Your task to perform on an android device: allow cookies in the chrome app Image 0: 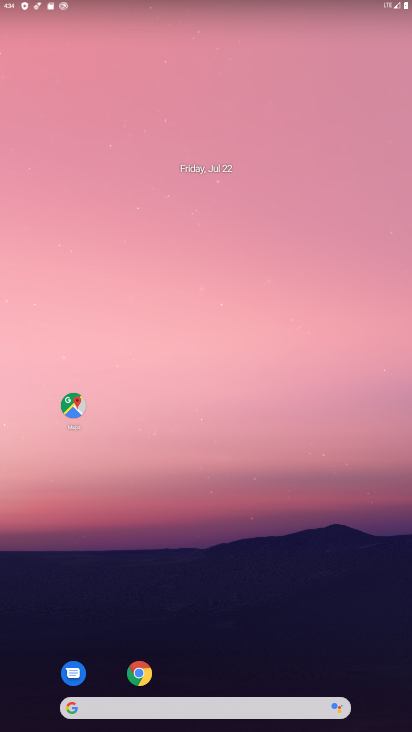
Step 0: press home button
Your task to perform on an android device: allow cookies in the chrome app Image 1: 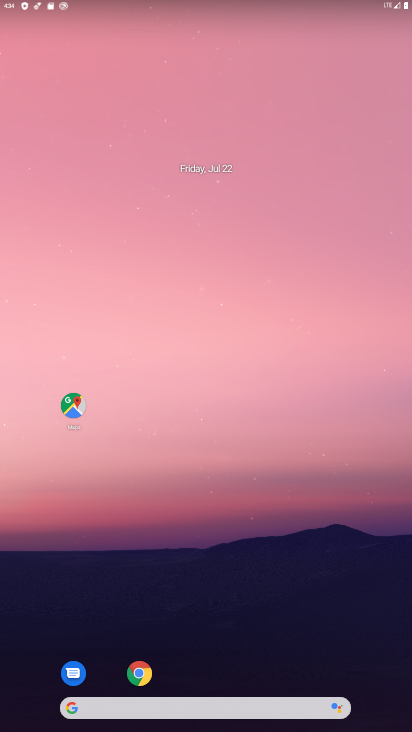
Step 1: drag from (289, 638) to (258, 121)
Your task to perform on an android device: allow cookies in the chrome app Image 2: 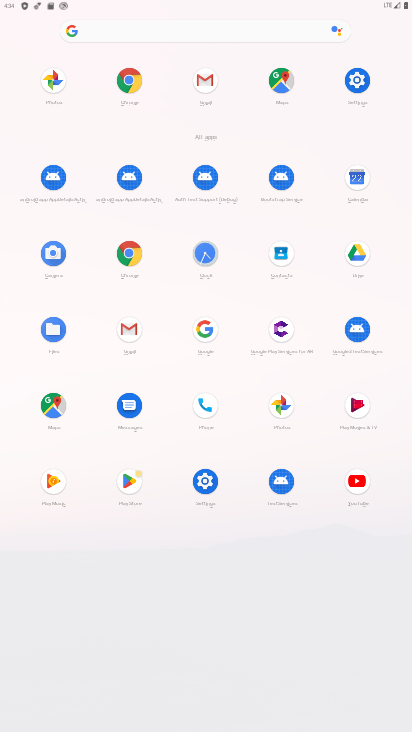
Step 2: click (124, 74)
Your task to perform on an android device: allow cookies in the chrome app Image 3: 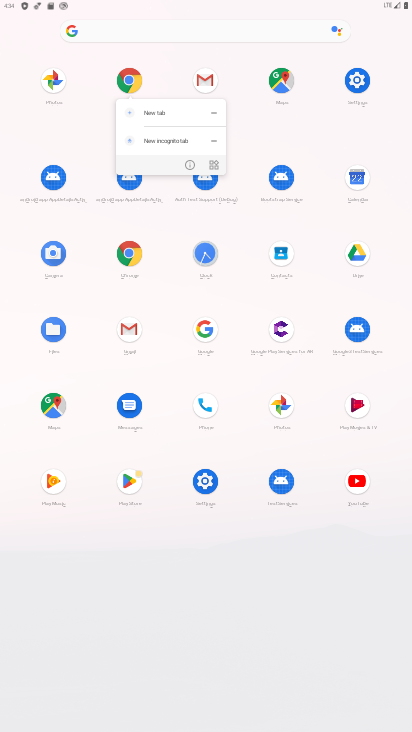
Step 3: click (129, 87)
Your task to perform on an android device: allow cookies in the chrome app Image 4: 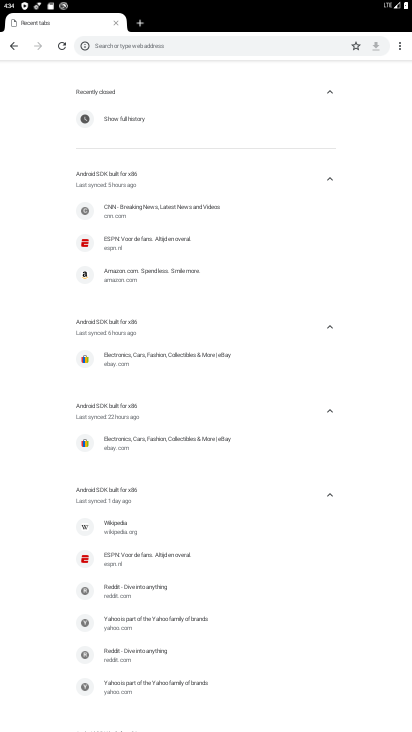
Step 4: drag from (396, 45) to (300, 207)
Your task to perform on an android device: allow cookies in the chrome app Image 5: 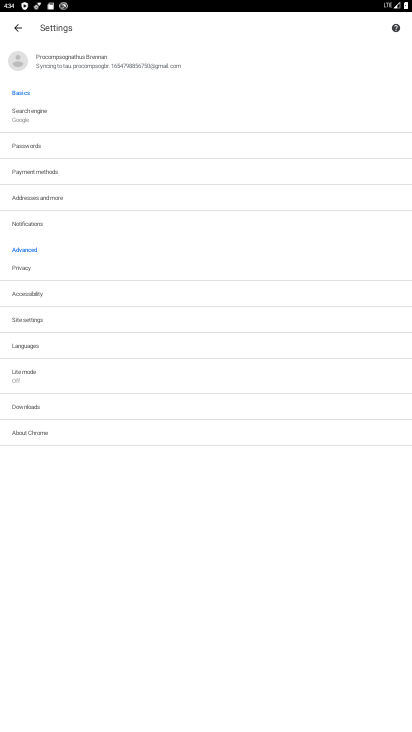
Step 5: click (31, 314)
Your task to perform on an android device: allow cookies in the chrome app Image 6: 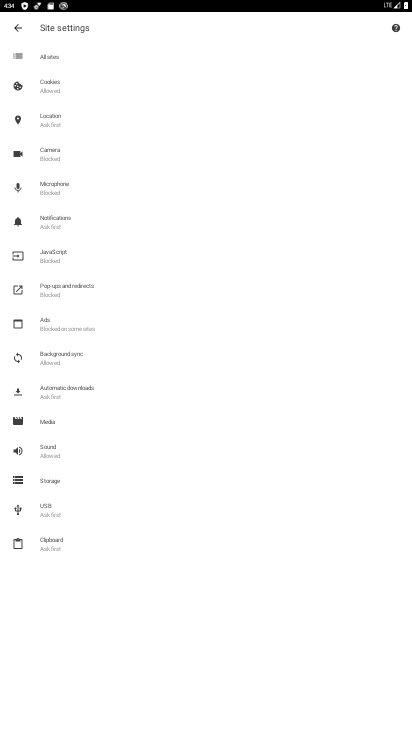
Step 6: click (50, 156)
Your task to perform on an android device: allow cookies in the chrome app Image 7: 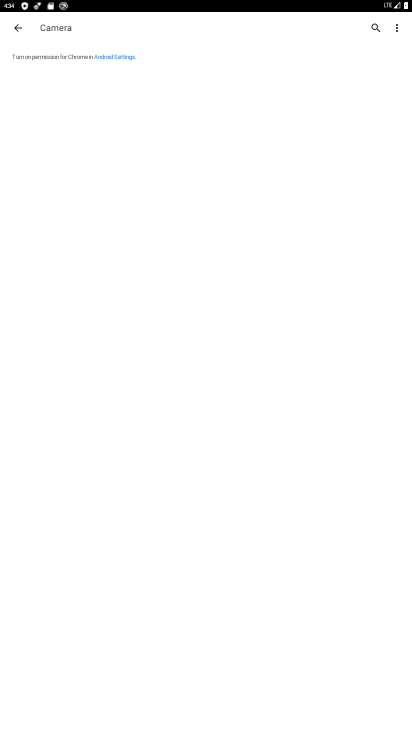
Step 7: task complete